Your task to perform on an android device: Open calendar and show me the third week of next month Image 0: 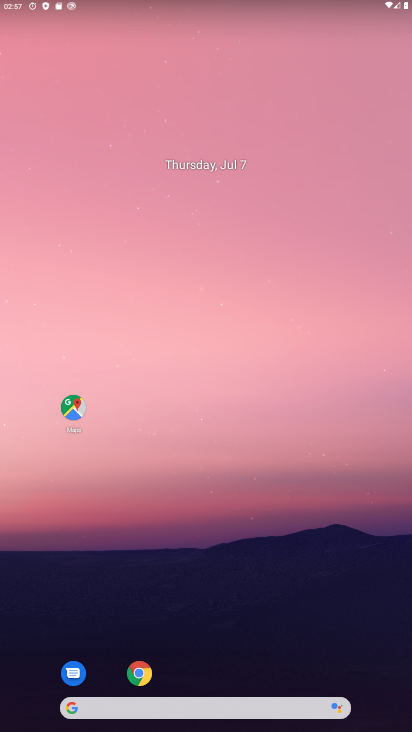
Step 0: drag from (220, 662) to (252, 50)
Your task to perform on an android device: Open calendar and show me the third week of next month Image 1: 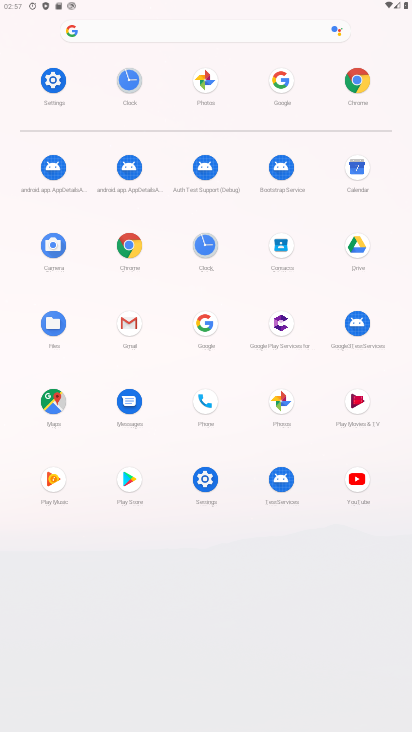
Step 1: click (356, 172)
Your task to perform on an android device: Open calendar and show me the third week of next month Image 2: 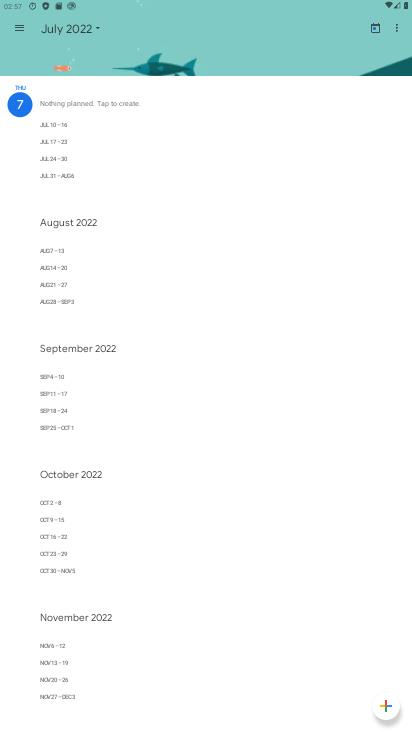
Step 2: click (96, 27)
Your task to perform on an android device: Open calendar and show me the third week of next month Image 3: 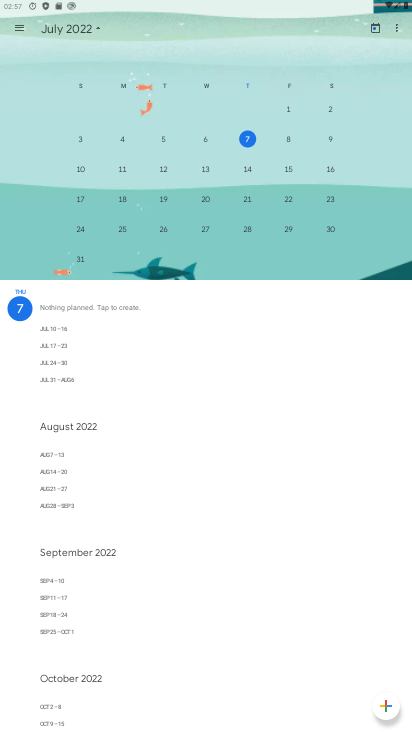
Step 3: drag from (333, 171) to (50, 172)
Your task to perform on an android device: Open calendar and show me the third week of next month Image 4: 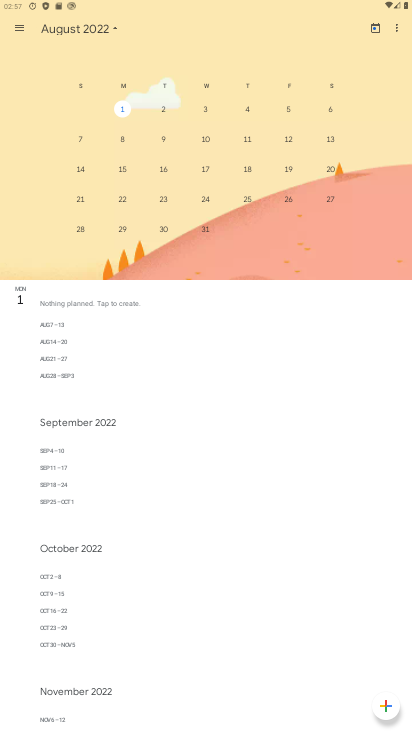
Step 4: click (83, 170)
Your task to perform on an android device: Open calendar and show me the third week of next month Image 5: 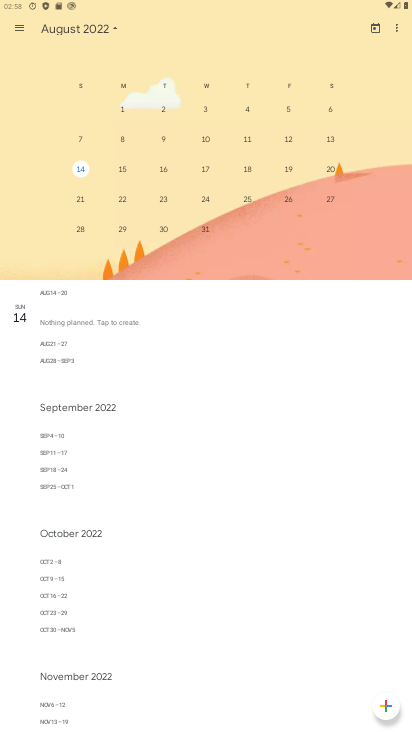
Step 5: drag from (121, 393) to (117, 359)
Your task to perform on an android device: Open calendar and show me the third week of next month Image 6: 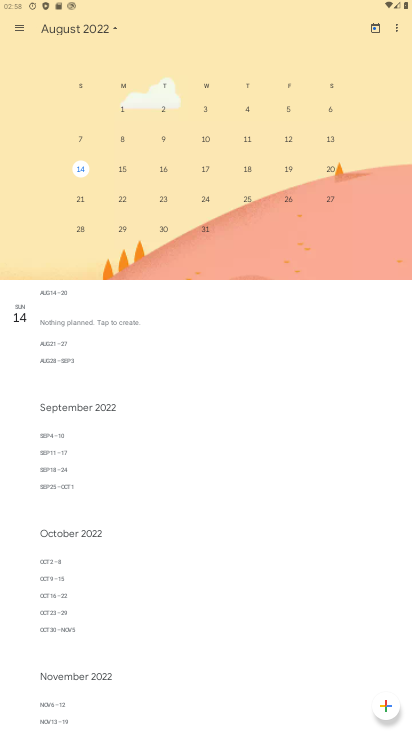
Step 6: click (54, 330)
Your task to perform on an android device: Open calendar and show me the third week of next month Image 7: 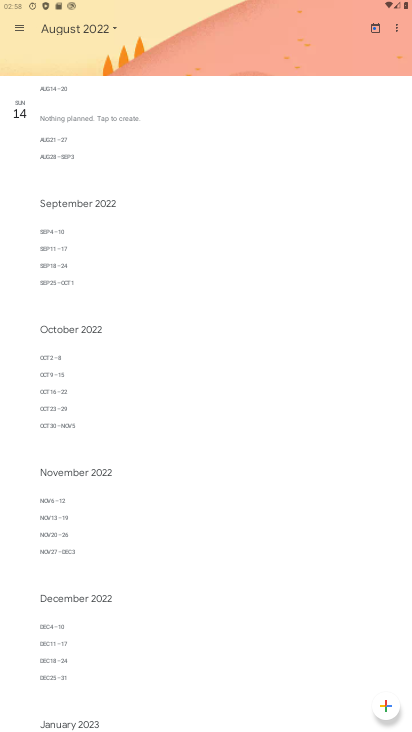
Step 7: task complete